Your task to perform on an android device: open a bookmark in the chrome app Image 0: 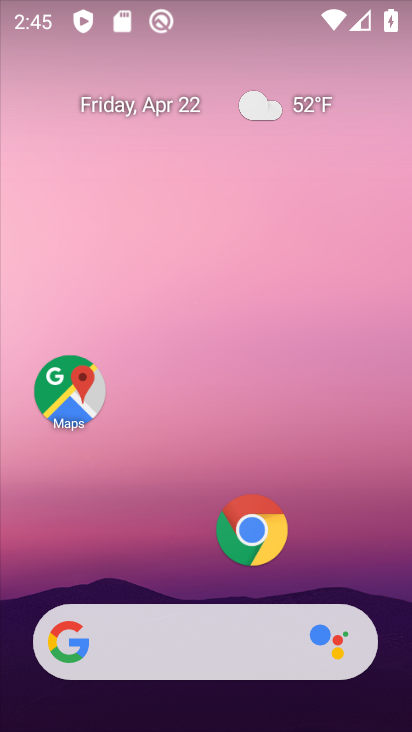
Step 0: click (231, 539)
Your task to perform on an android device: open a bookmark in the chrome app Image 1: 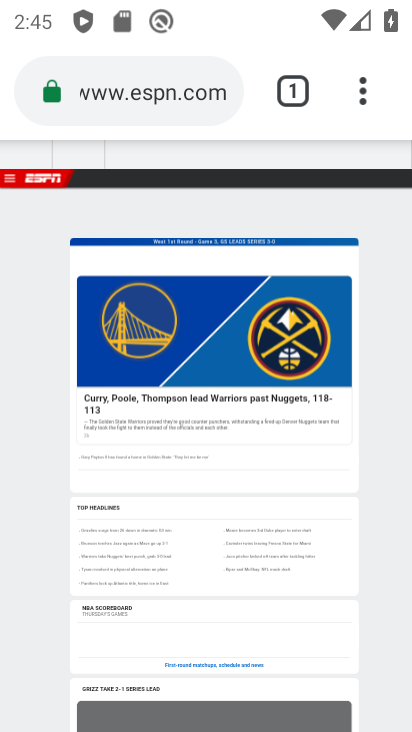
Step 1: click (364, 93)
Your task to perform on an android device: open a bookmark in the chrome app Image 2: 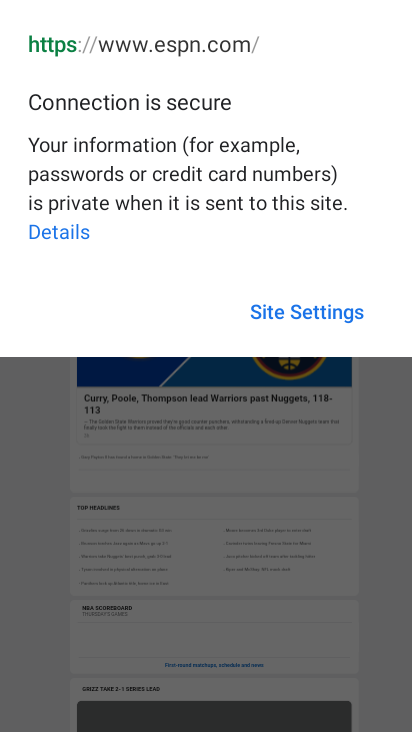
Step 2: task complete